Your task to perform on an android device: turn on notifications settings in the gmail app Image 0: 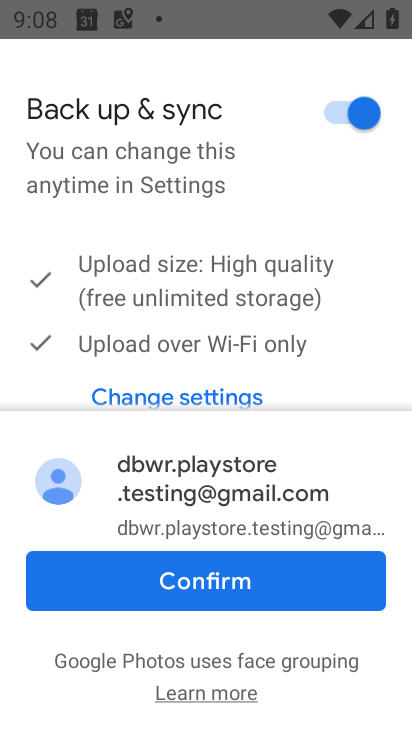
Step 0: press back button
Your task to perform on an android device: turn on notifications settings in the gmail app Image 1: 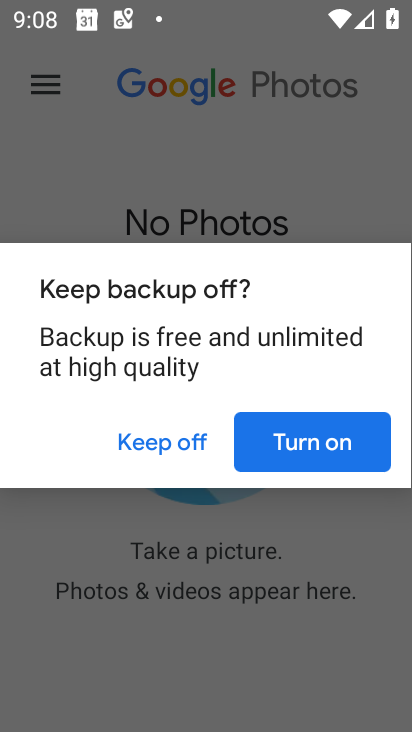
Step 1: press back button
Your task to perform on an android device: turn on notifications settings in the gmail app Image 2: 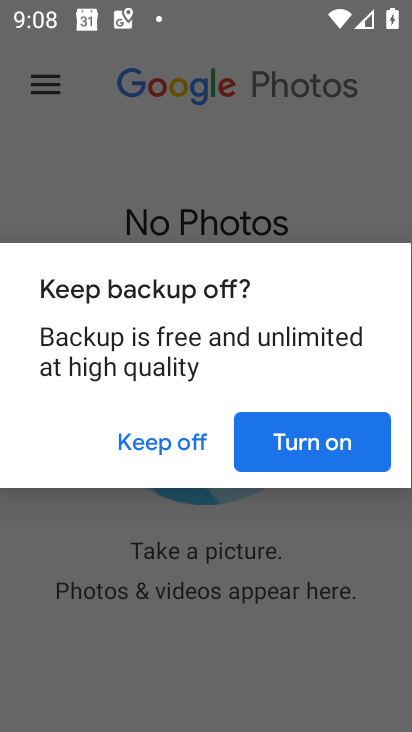
Step 2: press home button
Your task to perform on an android device: turn on notifications settings in the gmail app Image 3: 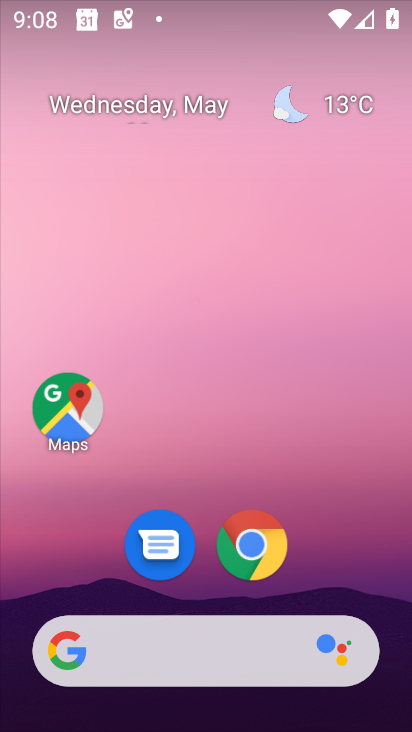
Step 3: drag from (322, 588) to (246, 15)
Your task to perform on an android device: turn on notifications settings in the gmail app Image 4: 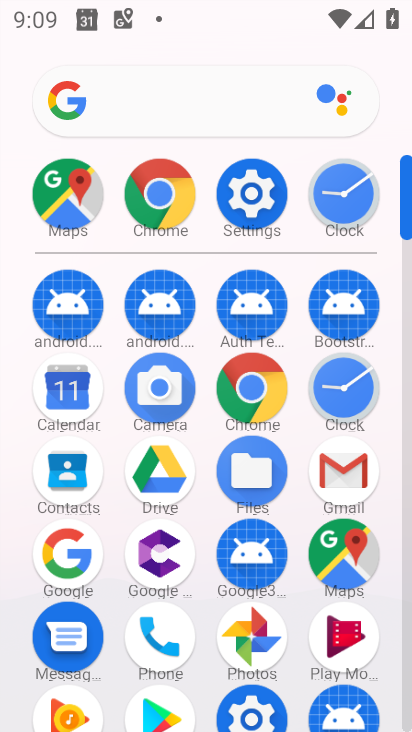
Step 4: click (344, 466)
Your task to perform on an android device: turn on notifications settings in the gmail app Image 5: 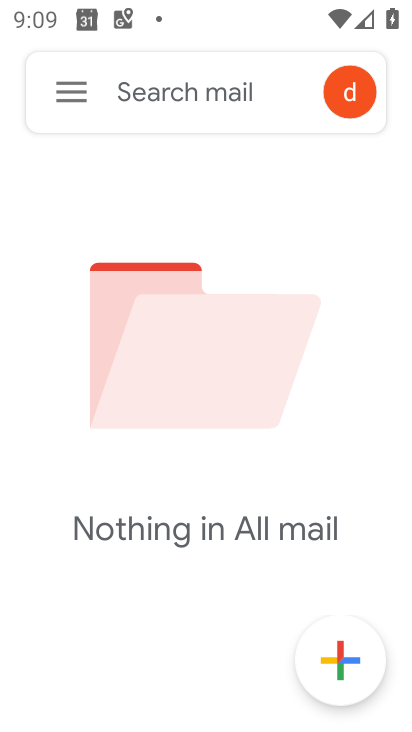
Step 5: click (53, 76)
Your task to perform on an android device: turn on notifications settings in the gmail app Image 6: 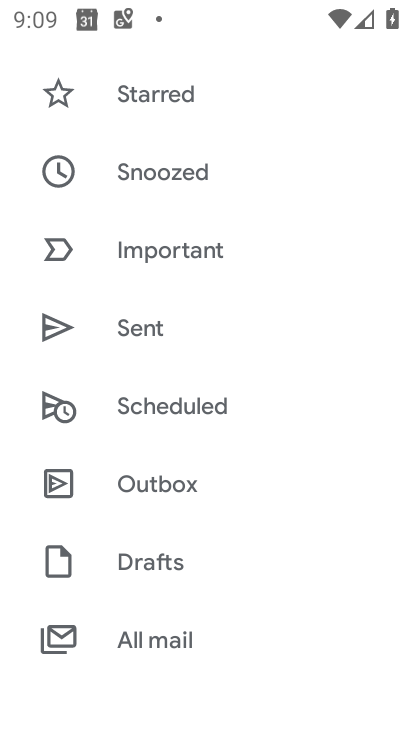
Step 6: drag from (160, 546) to (142, 130)
Your task to perform on an android device: turn on notifications settings in the gmail app Image 7: 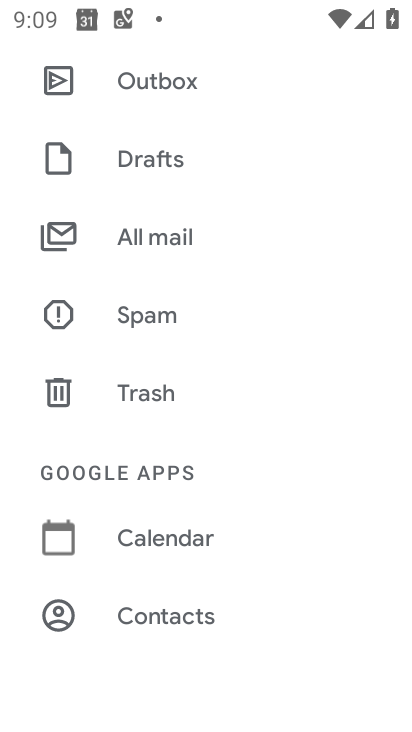
Step 7: drag from (167, 561) to (161, 112)
Your task to perform on an android device: turn on notifications settings in the gmail app Image 8: 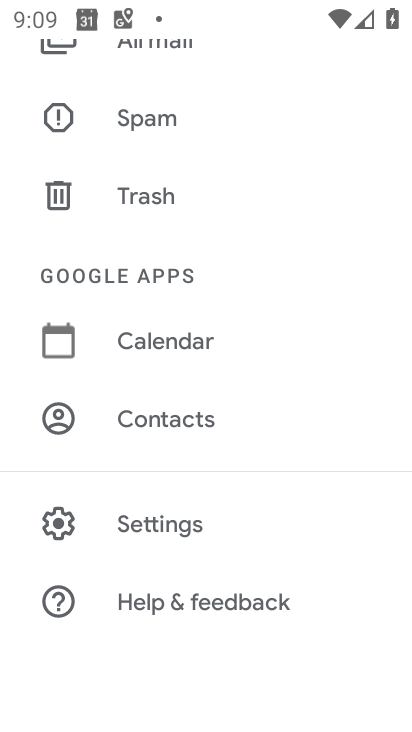
Step 8: click (166, 524)
Your task to perform on an android device: turn on notifications settings in the gmail app Image 9: 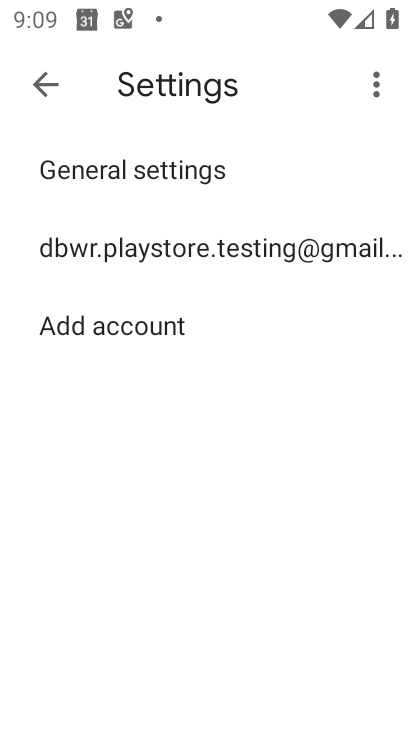
Step 9: click (127, 245)
Your task to perform on an android device: turn on notifications settings in the gmail app Image 10: 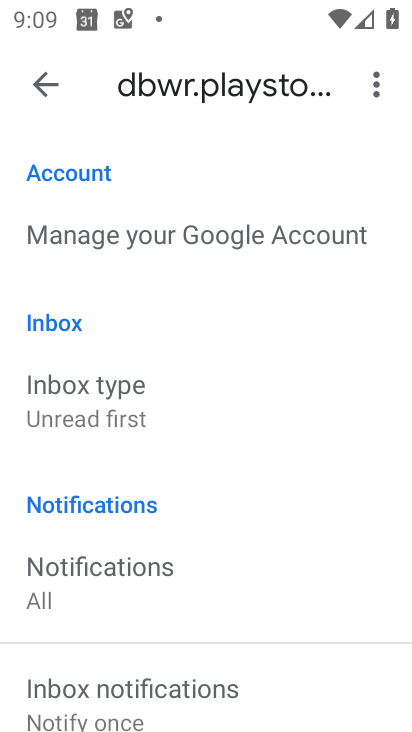
Step 10: drag from (229, 611) to (207, 174)
Your task to perform on an android device: turn on notifications settings in the gmail app Image 11: 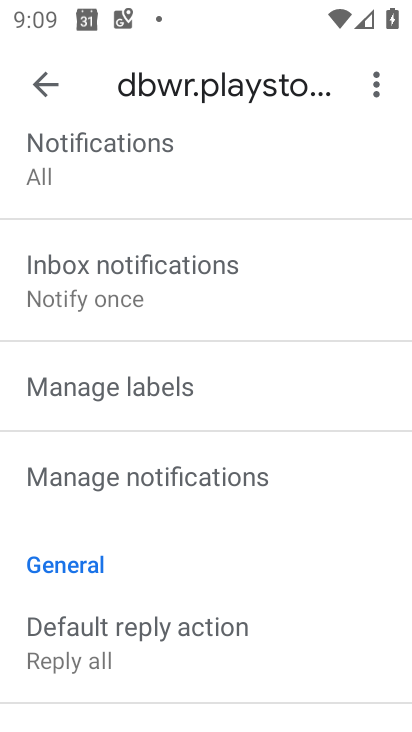
Step 11: click (146, 473)
Your task to perform on an android device: turn on notifications settings in the gmail app Image 12: 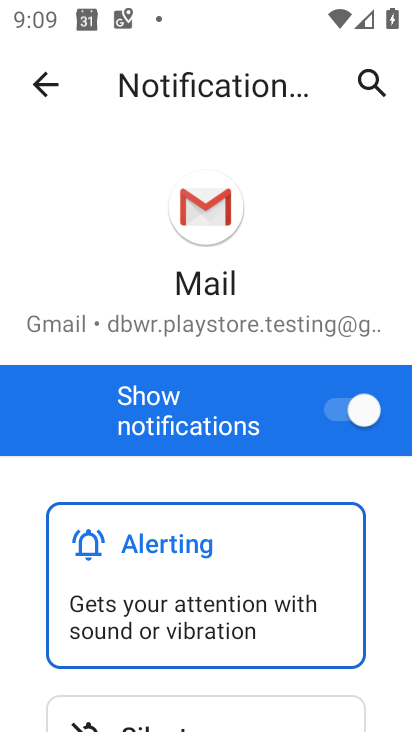
Step 12: task complete